Your task to perform on an android device: Go to CNN.com Image 0: 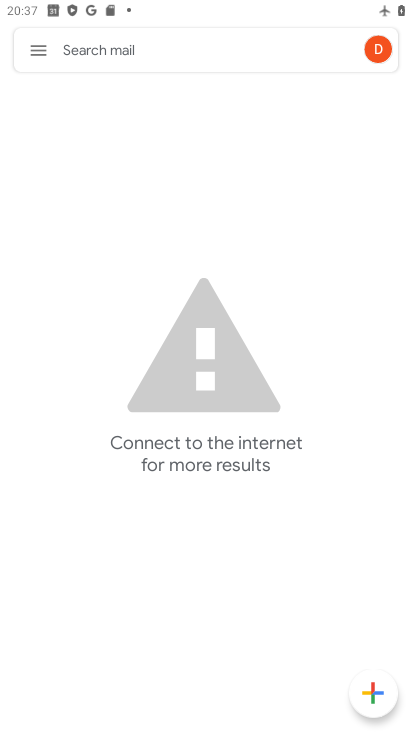
Step 0: press home button
Your task to perform on an android device: Go to CNN.com Image 1: 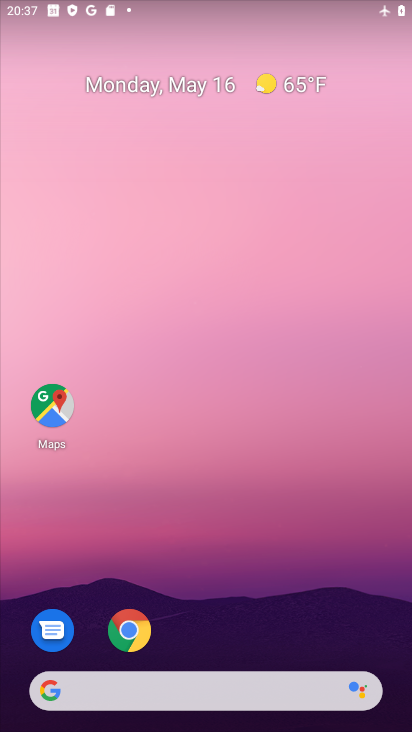
Step 1: click (134, 646)
Your task to perform on an android device: Go to CNN.com Image 2: 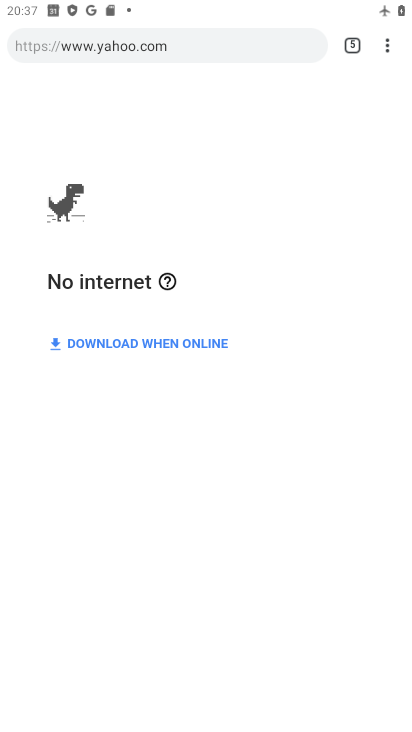
Step 2: click (347, 46)
Your task to perform on an android device: Go to CNN.com Image 3: 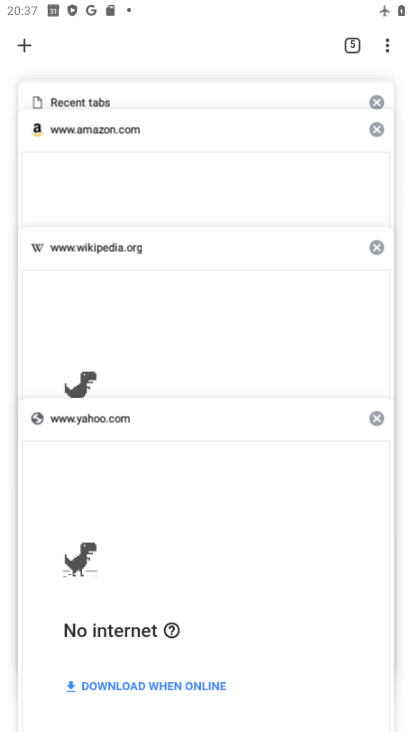
Step 3: click (20, 47)
Your task to perform on an android device: Go to CNN.com Image 4: 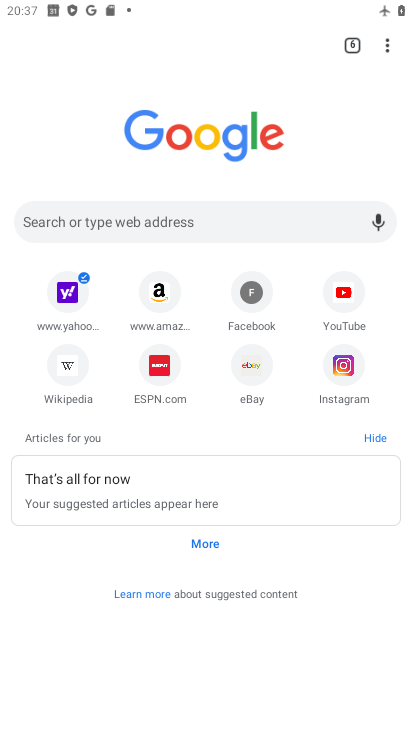
Step 4: click (165, 219)
Your task to perform on an android device: Go to CNN.com Image 5: 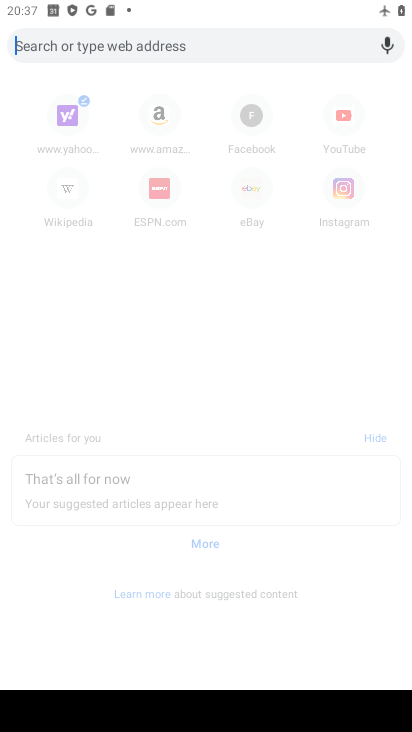
Step 5: type "CNN.com"
Your task to perform on an android device: Go to CNN.com Image 6: 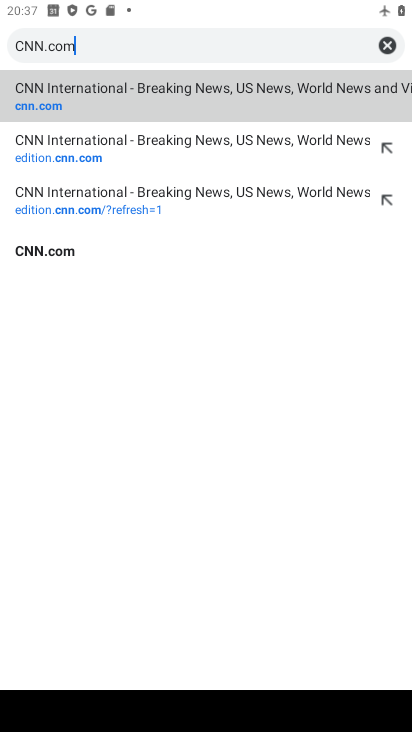
Step 6: click (99, 251)
Your task to perform on an android device: Go to CNN.com Image 7: 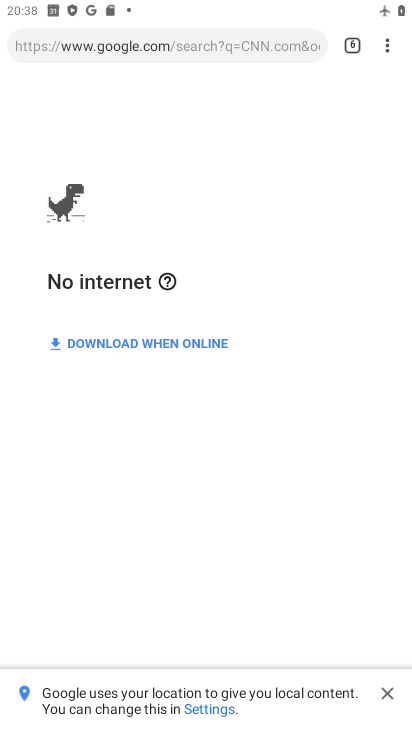
Step 7: task complete